Your task to perform on an android device: open a new tab in the chrome app Image 0: 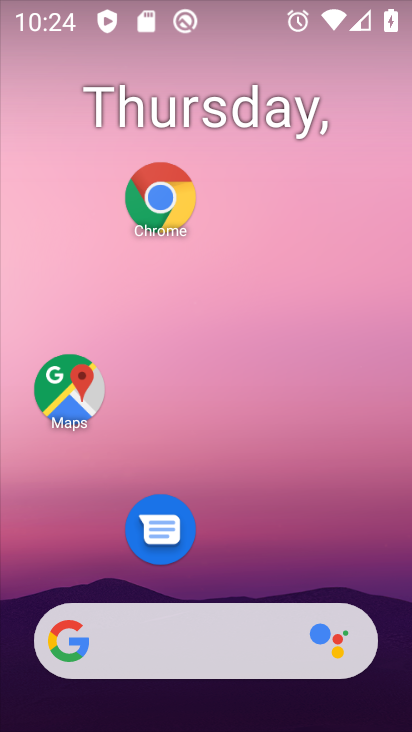
Step 0: click (155, 198)
Your task to perform on an android device: open a new tab in the chrome app Image 1: 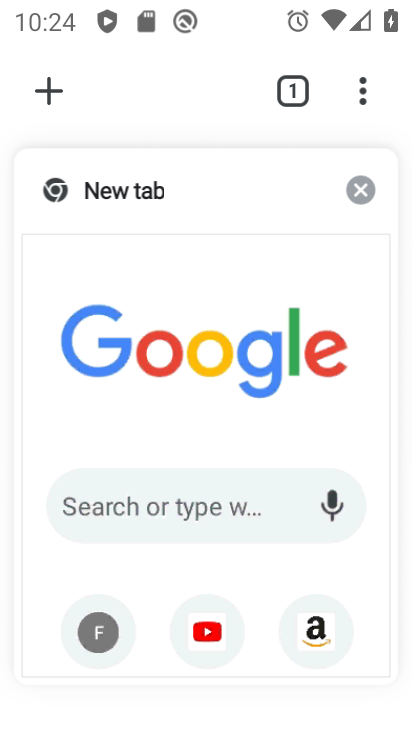
Step 1: click (96, 89)
Your task to perform on an android device: open a new tab in the chrome app Image 2: 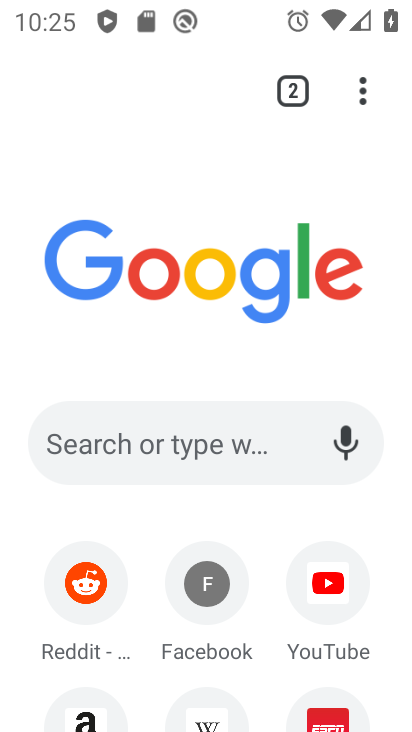
Step 2: click (362, 89)
Your task to perform on an android device: open a new tab in the chrome app Image 3: 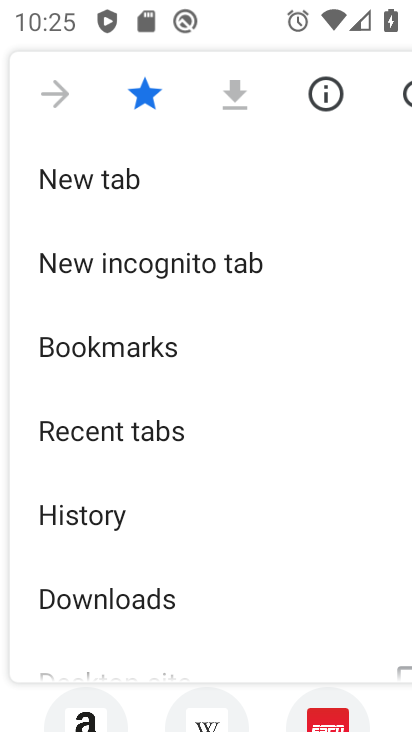
Step 3: click (68, 190)
Your task to perform on an android device: open a new tab in the chrome app Image 4: 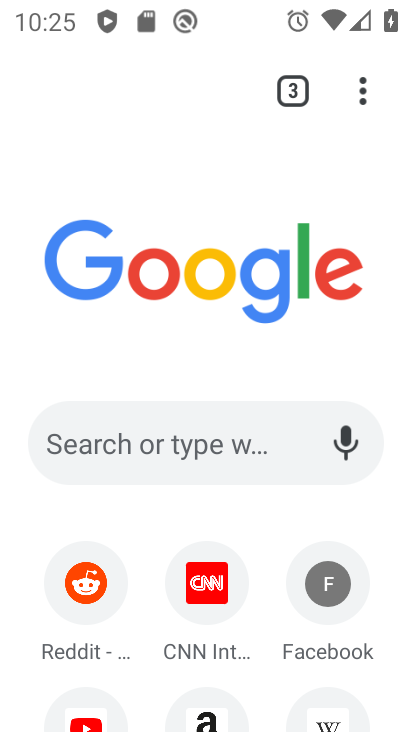
Step 4: task complete